Your task to perform on an android device: turn off notifications settings in the gmail app Image 0: 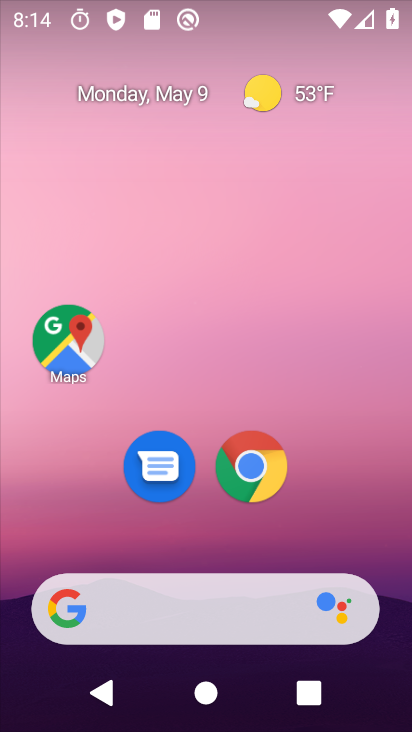
Step 0: drag from (322, 525) to (278, 2)
Your task to perform on an android device: turn off notifications settings in the gmail app Image 1: 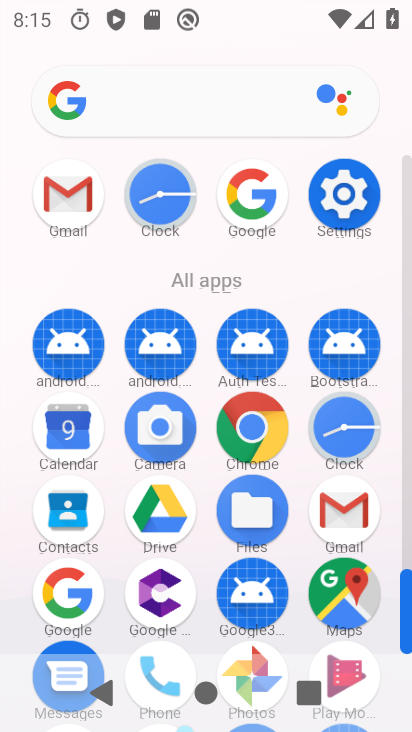
Step 1: click (70, 199)
Your task to perform on an android device: turn off notifications settings in the gmail app Image 2: 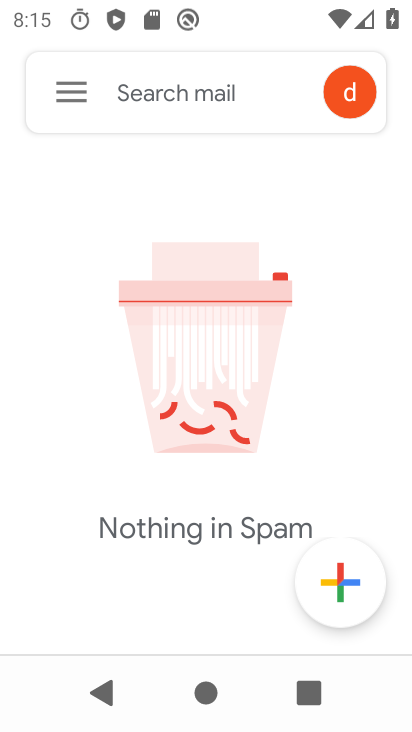
Step 2: click (63, 79)
Your task to perform on an android device: turn off notifications settings in the gmail app Image 3: 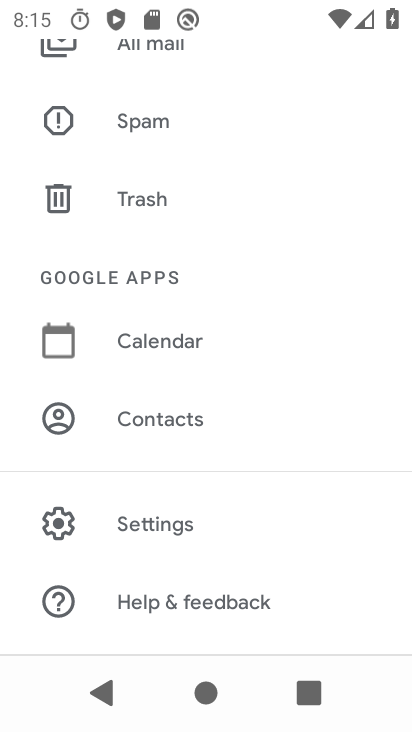
Step 3: click (166, 528)
Your task to perform on an android device: turn off notifications settings in the gmail app Image 4: 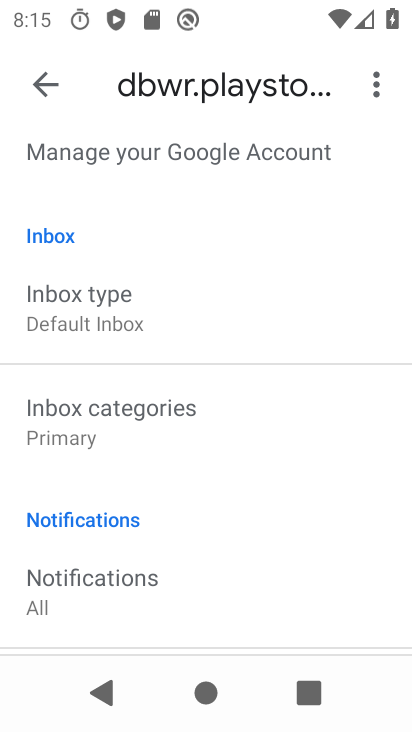
Step 4: drag from (157, 451) to (196, 343)
Your task to perform on an android device: turn off notifications settings in the gmail app Image 5: 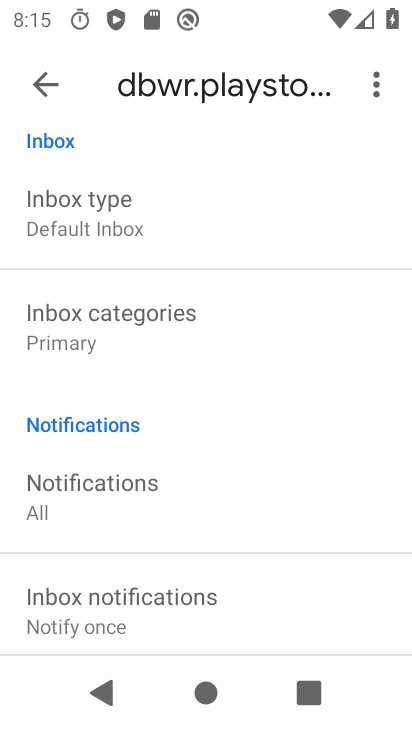
Step 5: drag from (165, 514) to (204, 418)
Your task to perform on an android device: turn off notifications settings in the gmail app Image 6: 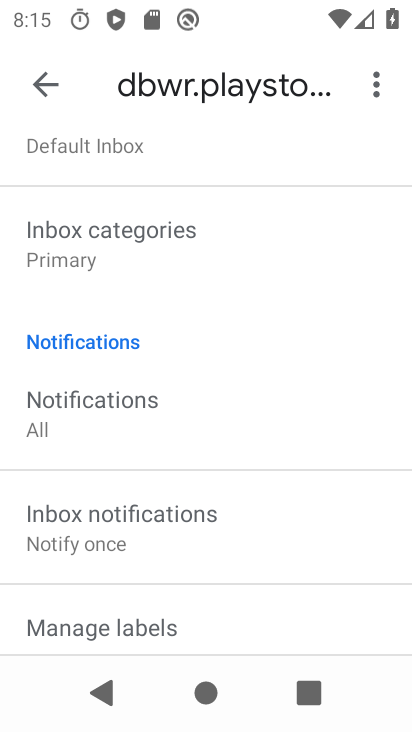
Step 6: drag from (146, 548) to (213, 429)
Your task to perform on an android device: turn off notifications settings in the gmail app Image 7: 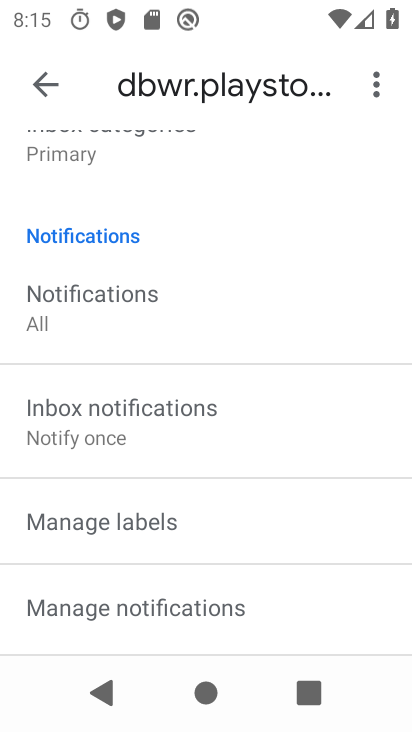
Step 7: drag from (184, 535) to (222, 449)
Your task to perform on an android device: turn off notifications settings in the gmail app Image 8: 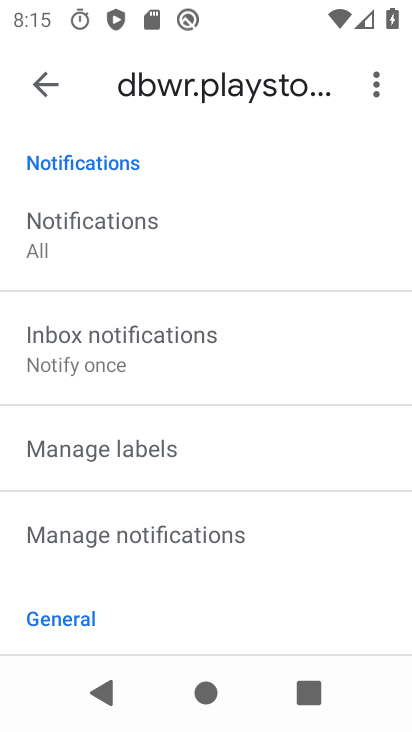
Step 8: click (176, 544)
Your task to perform on an android device: turn off notifications settings in the gmail app Image 9: 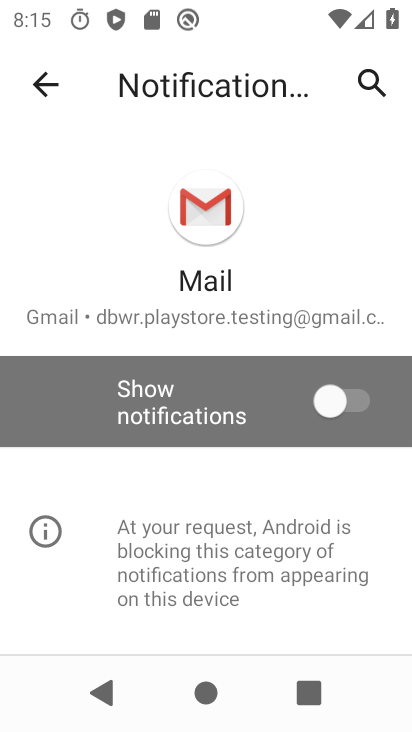
Step 9: task complete